Your task to perform on an android device: see tabs open on other devices in the chrome app Image 0: 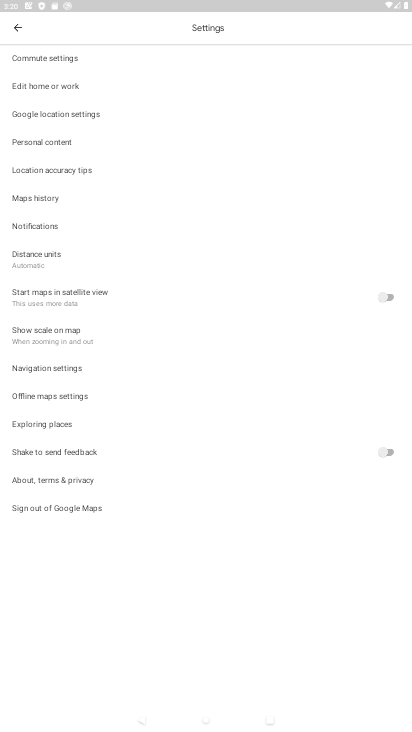
Step 0: press home button
Your task to perform on an android device: see tabs open on other devices in the chrome app Image 1: 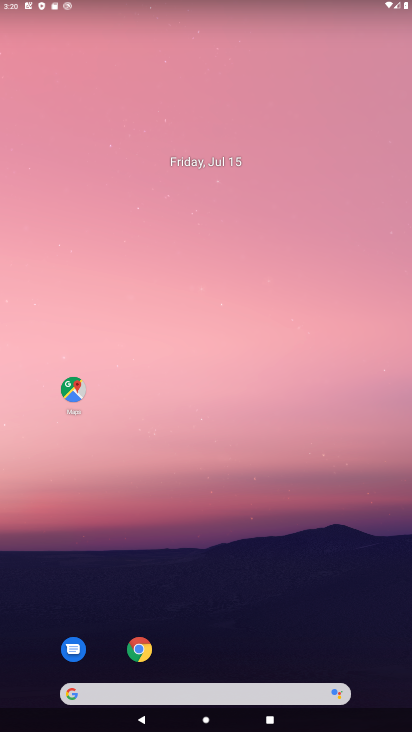
Step 1: drag from (291, 610) to (294, 63)
Your task to perform on an android device: see tabs open on other devices in the chrome app Image 2: 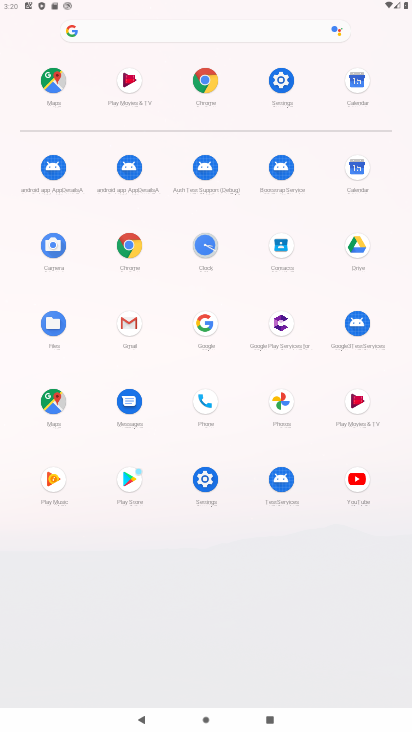
Step 2: click (129, 246)
Your task to perform on an android device: see tabs open on other devices in the chrome app Image 3: 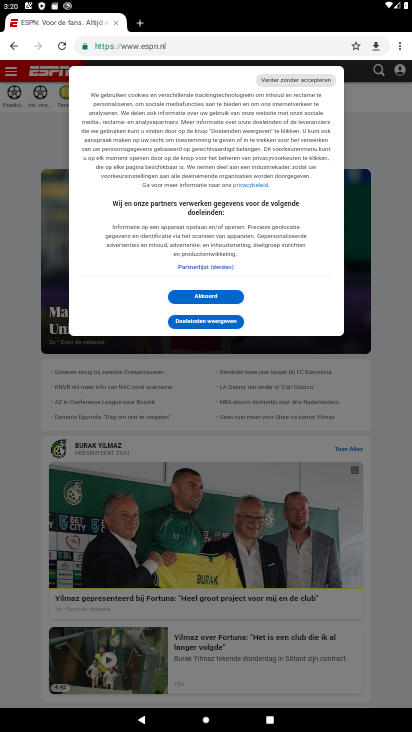
Step 3: task complete